Your task to perform on an android device: What's a good restaurant in Denver? Image 0: 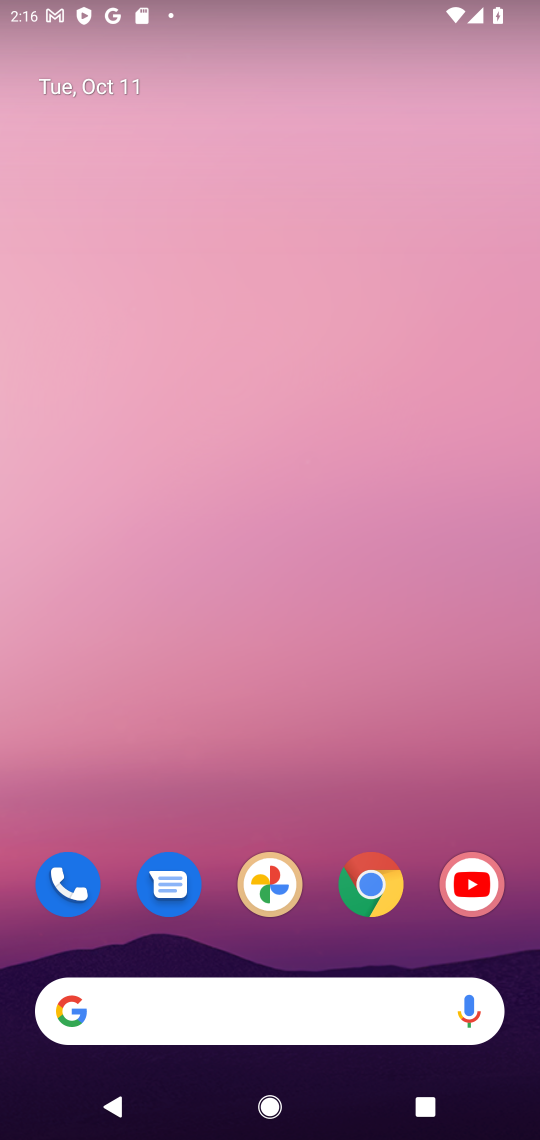
Step 0: click (368, 885)
Your task to perform on an android device: What's a good restaurant in Denver? Image 1: 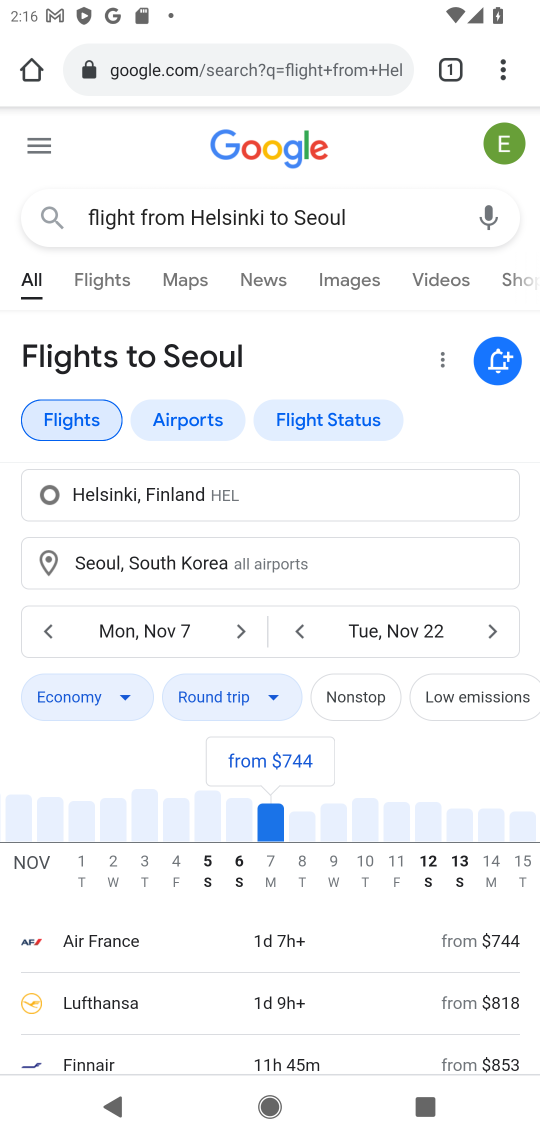
Step 1: click (331, 77)
Your task to perform on an android device: What's a good restaurant in Denver? Image 2: 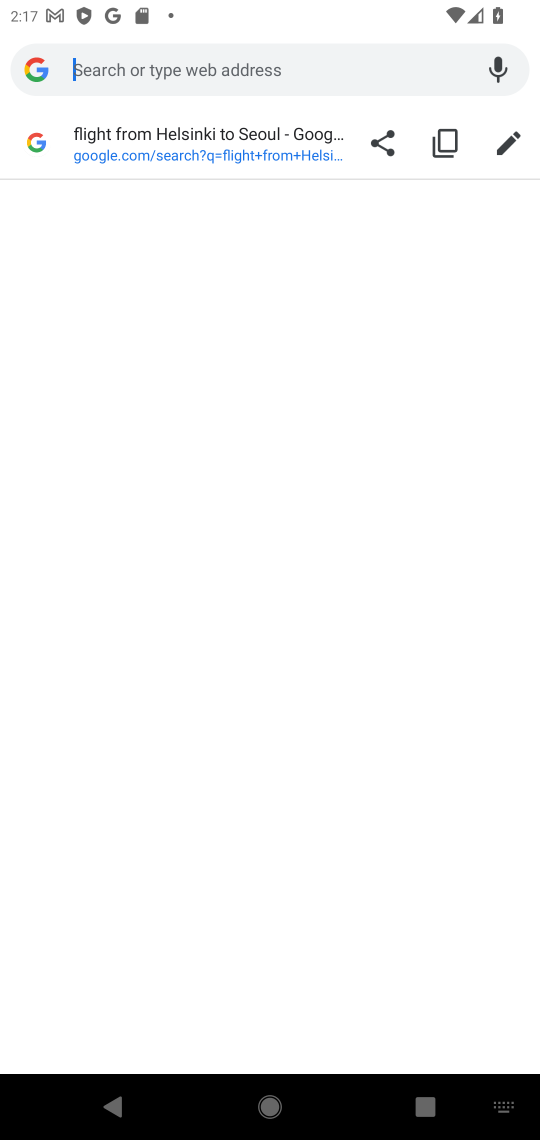
Step 2: type "What's a good restaurant in Denver"
Your task to perform on an android device: What's a good restaurant in Denver? Image 3: 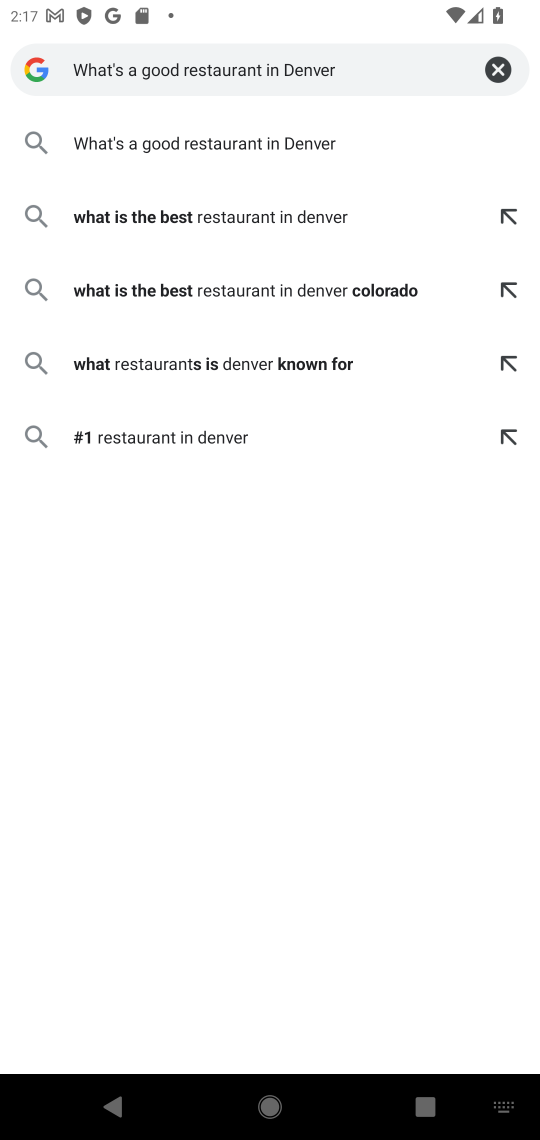
Step 3: click (235, 134)
Your task to perform on an android device: What's a good restaurant in Denver? Image 4: 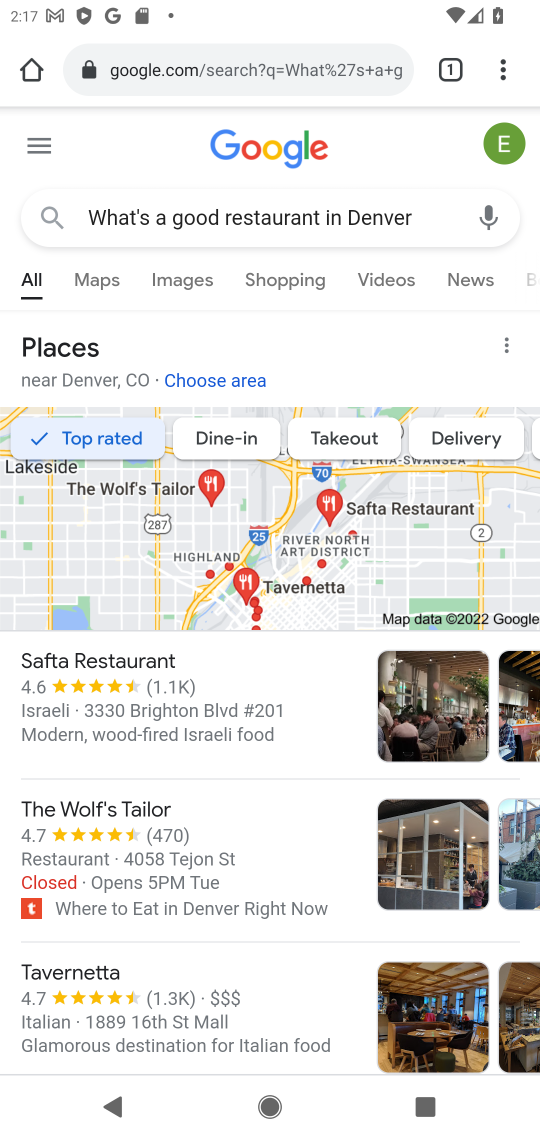
Step 4: task complete